Your task to perform on an android device: Open Google Chrome and click the shortcut for Amazon.com Image 0: 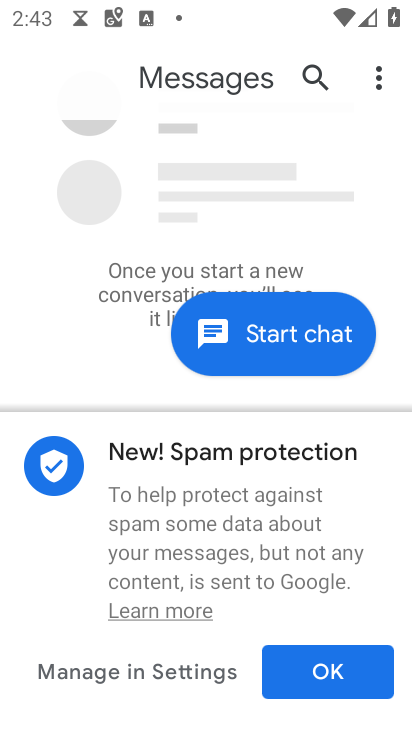
Step 0: press home button
Your task to perform on an android device: Open Google Chrome and click the shortcut for Amazon.com Image 1: 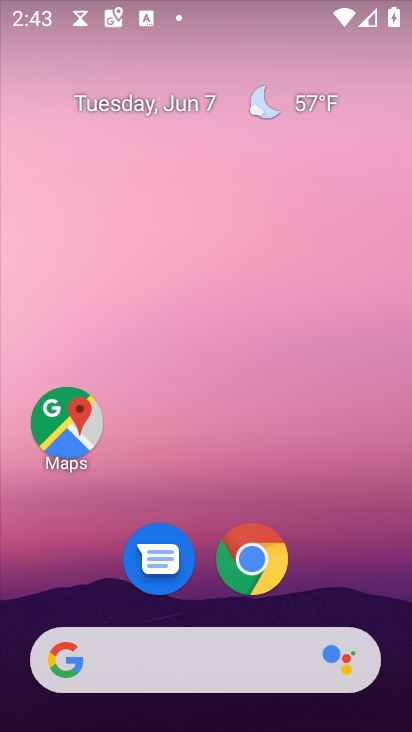
Step 1: click (229, 581)
Your task to perform on an android device: Open Google Chrome and click the shortcut for Amazon.com Image 2: 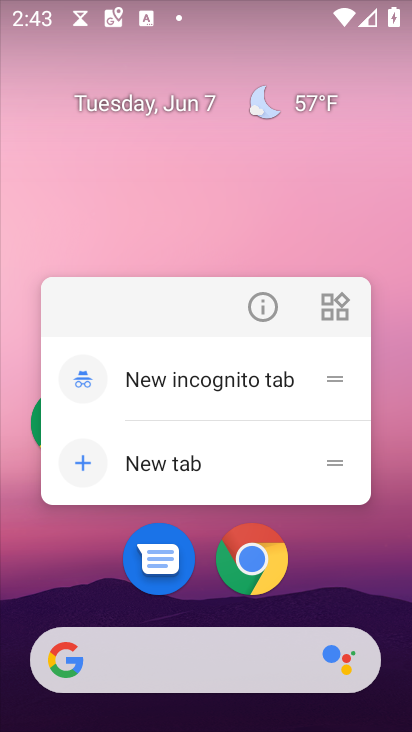
Step 2: click (279, 569)
Your task to perform on an android device: Open Google Chrome and click the shortcut for Amazon.com Image 3: 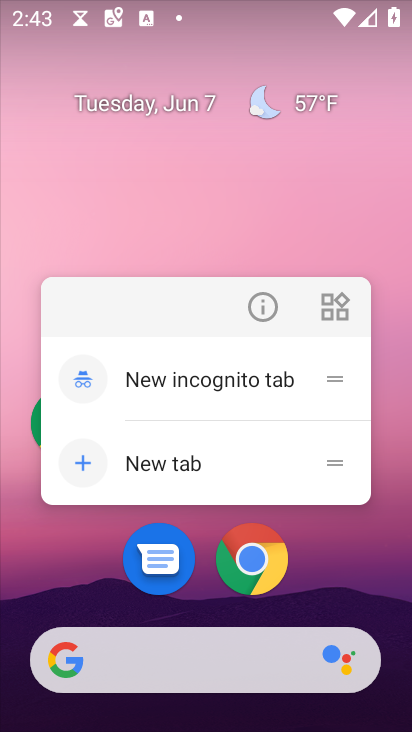
Step 3: click (236, 556)
Your task to perform on an android device: Open Google Chrome and click the shortcut for Amazon.com Image 4: 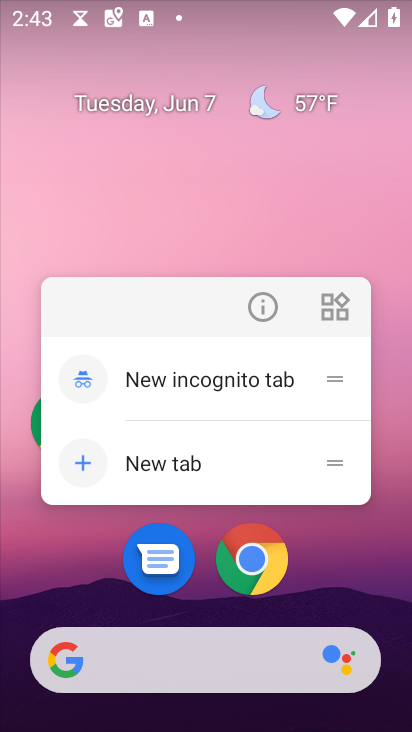
Step 4: click (235, 553)
Your task to perform on an android device: Open Google Chrome and click the shortcut for Amazon.com Image 5: 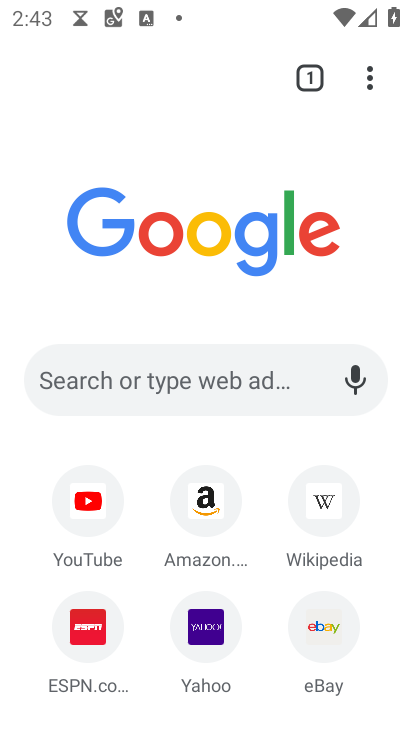
Step 5: click (195, 505)
Your task to perform on an android device: Open Google Chrome and click the shortcut for Amazon.com Image 6: 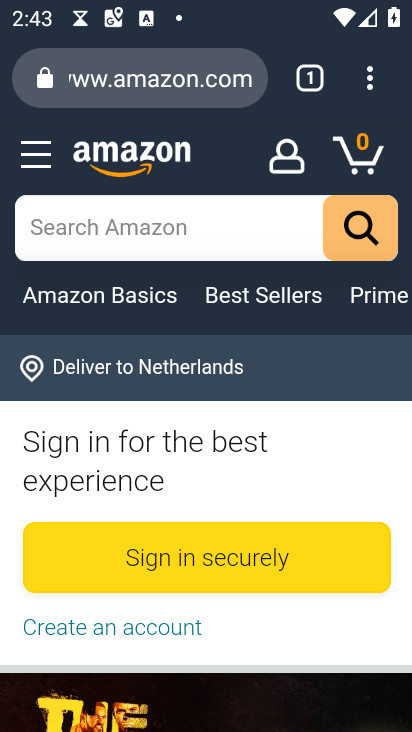
Step 6: task complete